Your task to perform on an android device: Open calendar and show me the first week of next month Image 0: 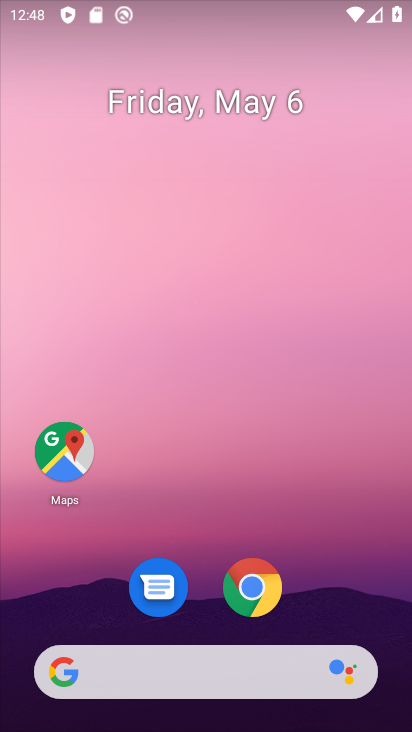
Step 0: drag from (306, 470) to (261, 39)
Your task to perform on an android device: Open calendar and show me the first week of next month Image 1: 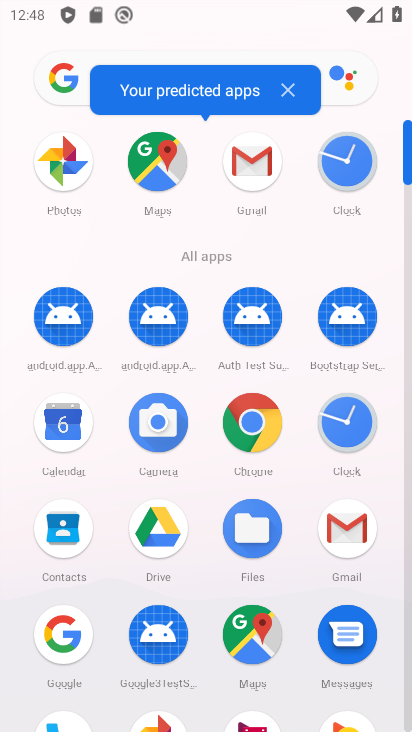
Step 1: click (56, 426)
Your task to perform on an android device: Open calendar and show me the first week of next month Image 2: 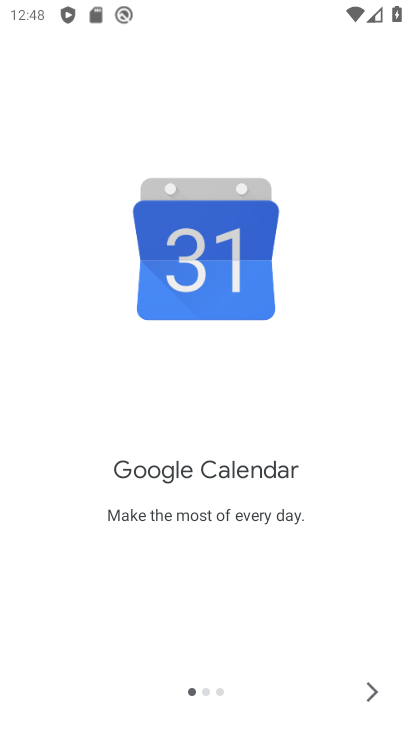
Step 2: click (379, 693)
Your task to perform on an android device: Open calendar and show me the first week of next month Image 3: 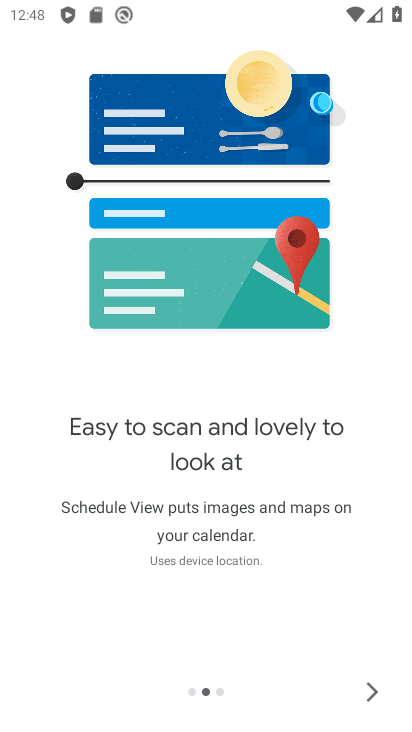
Step 3: click (379, 693)
Your task to perform on an android device: Open calendar and show me the first week of next month Image 4: 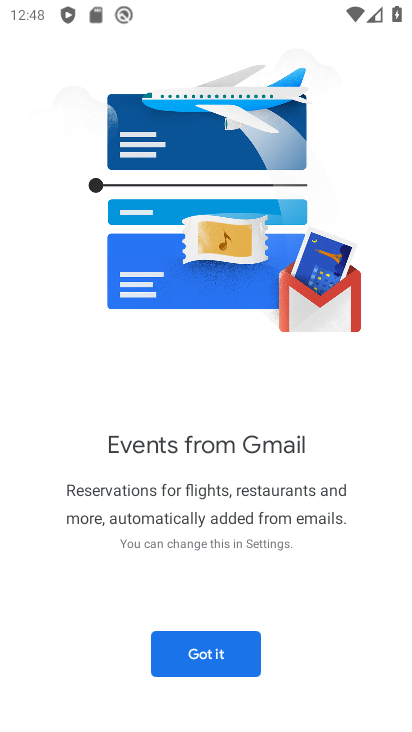
Step 4: click (207, 664)
Your task to perform on an android device: Open calendar and show me the first week of next month Image 5: 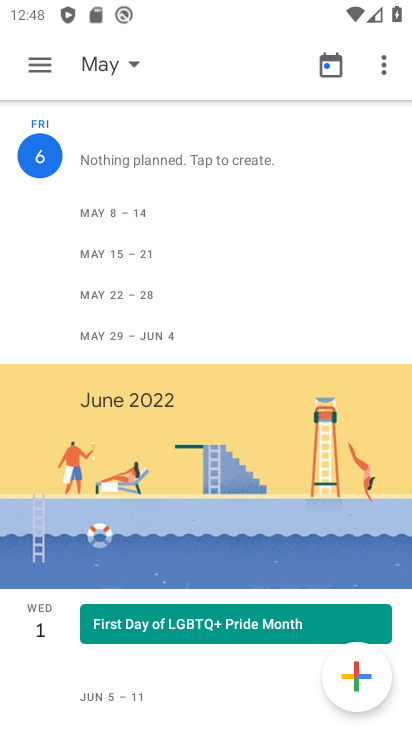
Step 5: click (42, 63)
Your task to perform on an android device: Open calendar and show me the first week of next month Image 6: 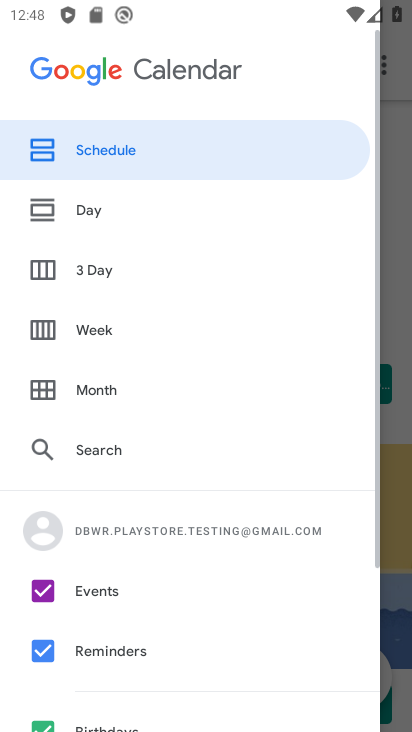
Step 6: click (140, 324)
Your task to perform on an android device: Open calendar and show me the first week of next month Image 7: 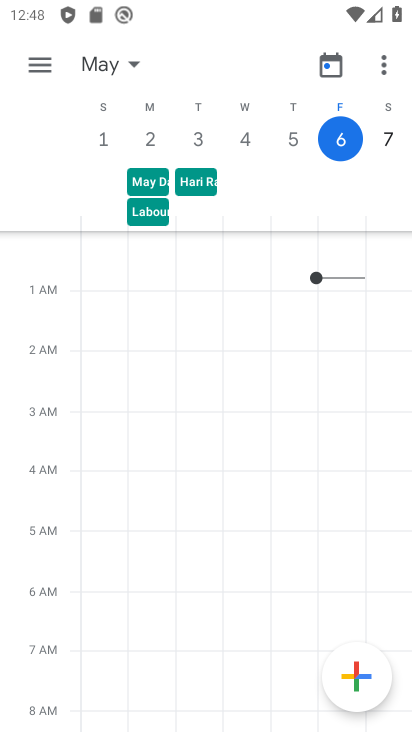
Step 7: click (107, 63)
Your task to perform on an android device: Open calendar and show me the first week of next month Image 8: 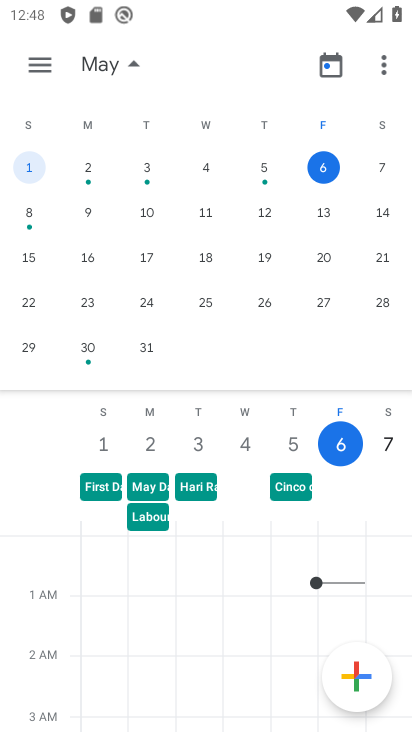
Step 8: drag from (319, 264) to (10, 186)
Your task to perform on an android device: Open calendar and show me the first week of next month Image 9: 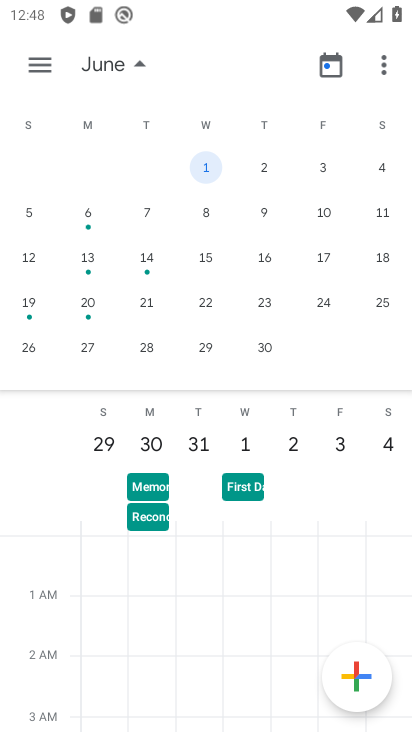
Step 9: click (200, 161)
Your task to perform on an android device: Open calendar and show me the first week of next month Image 10: 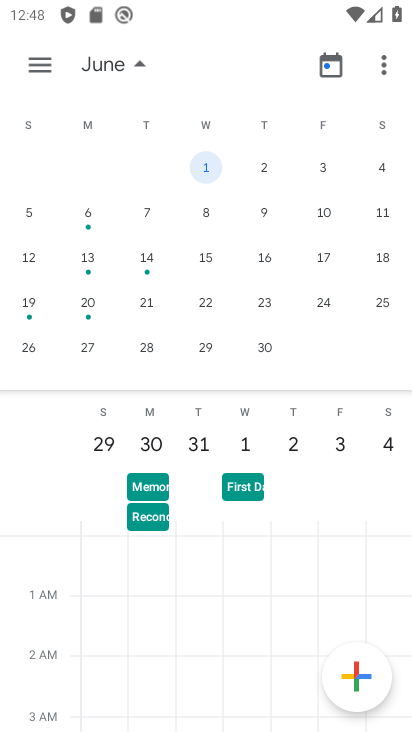
Step 10: click (266, 165)
Your task to perform on an android device: Open calendar and show me the first week of next month Image 11: 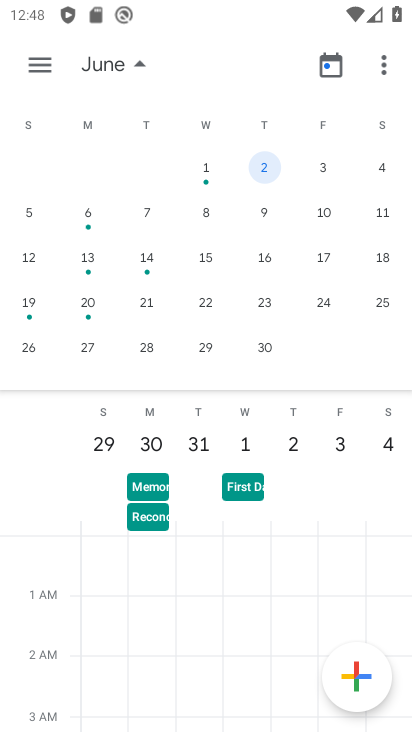
Step 11: click (266, 207)
Your task to perform on an android device: Open calendar and show me the first week of next month Image 12: 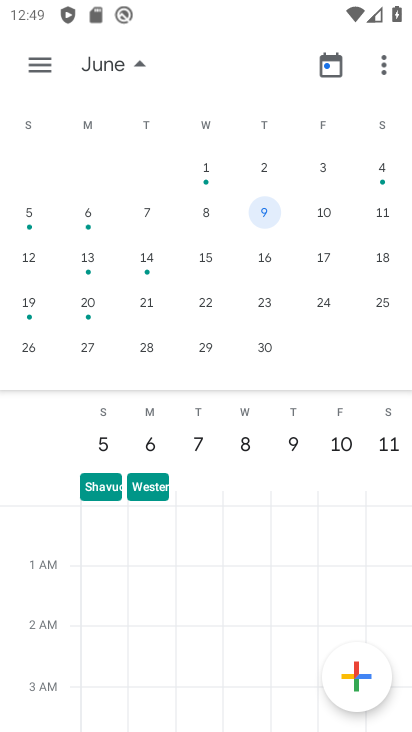
Step 12: task complete